Your task to perform on an android device: Search for Italian restaurants on Maps Image 0: 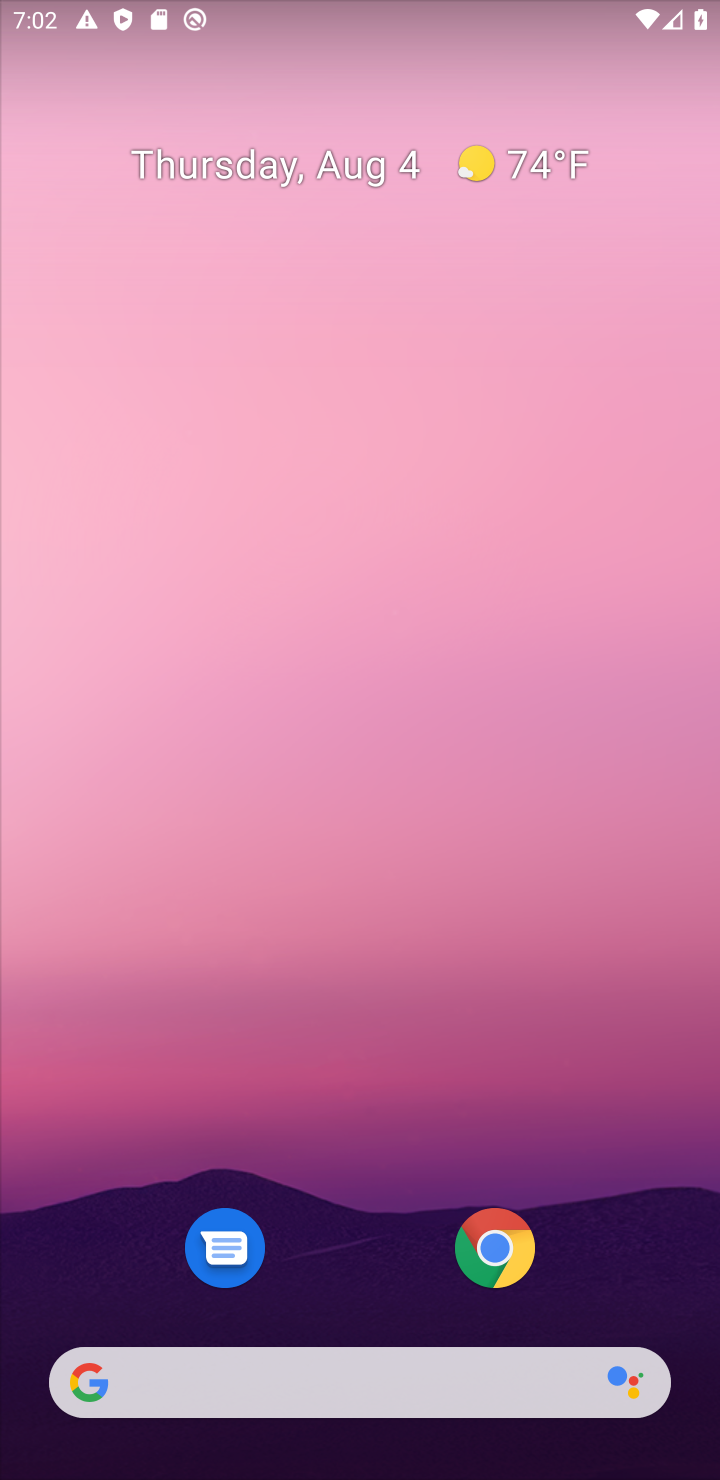
Step 0: drag from (379, 1434) to (334, 317)
Your task to perform on an android device: Search for Italian restaurants on Maps Image 1: 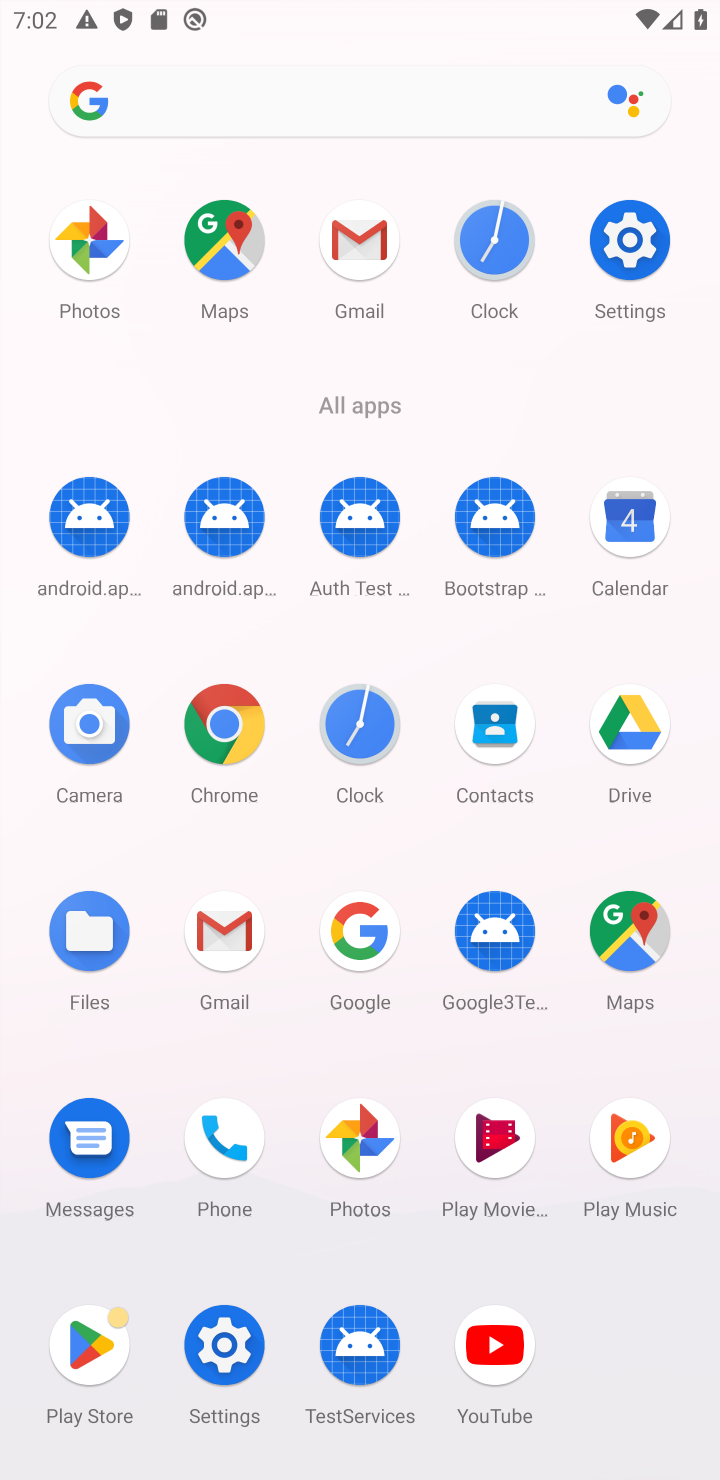
Step 1: click (222, 219)
Your task to perform on an android device: Search for Italian restaurants on Maps Image 2: 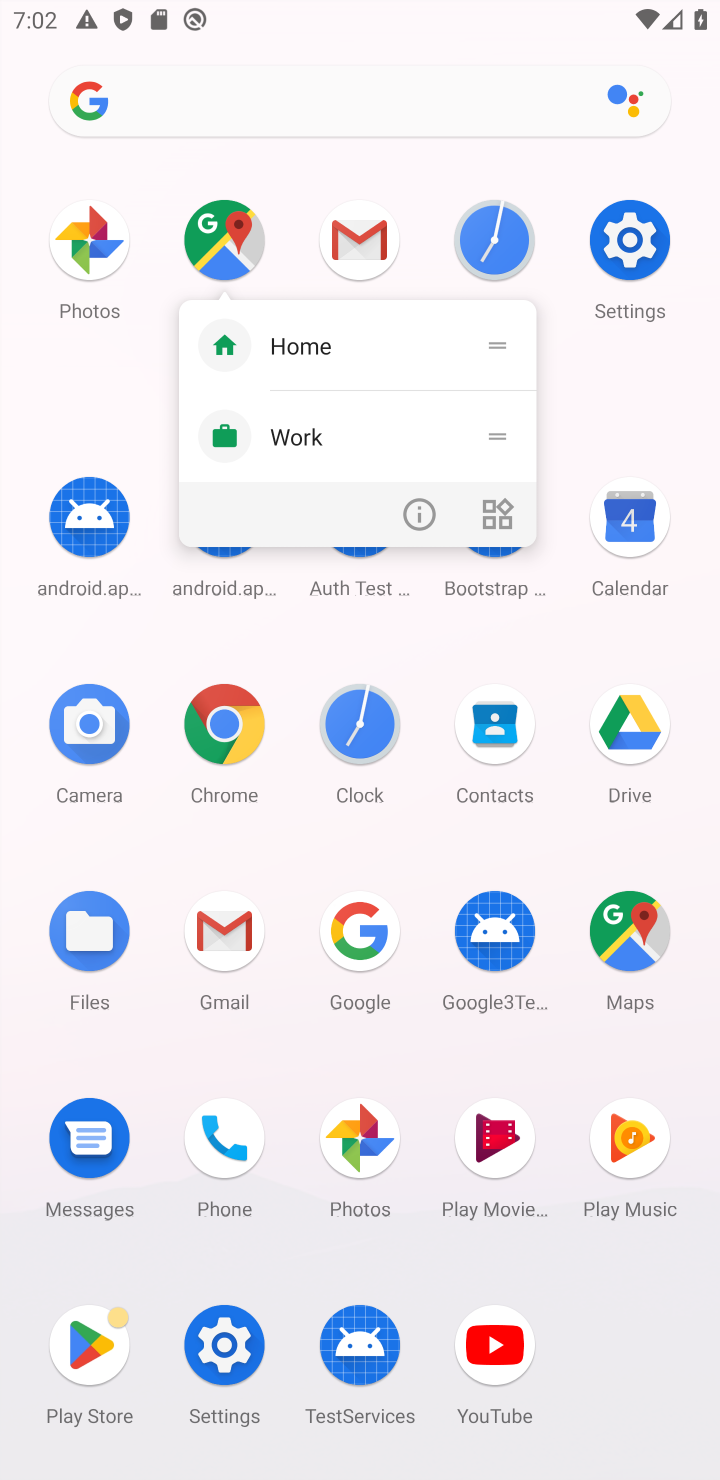
Step 2: click (219, 242)
Your task to perform on an android device: Search for Italian restaurants on Maps Image 3: 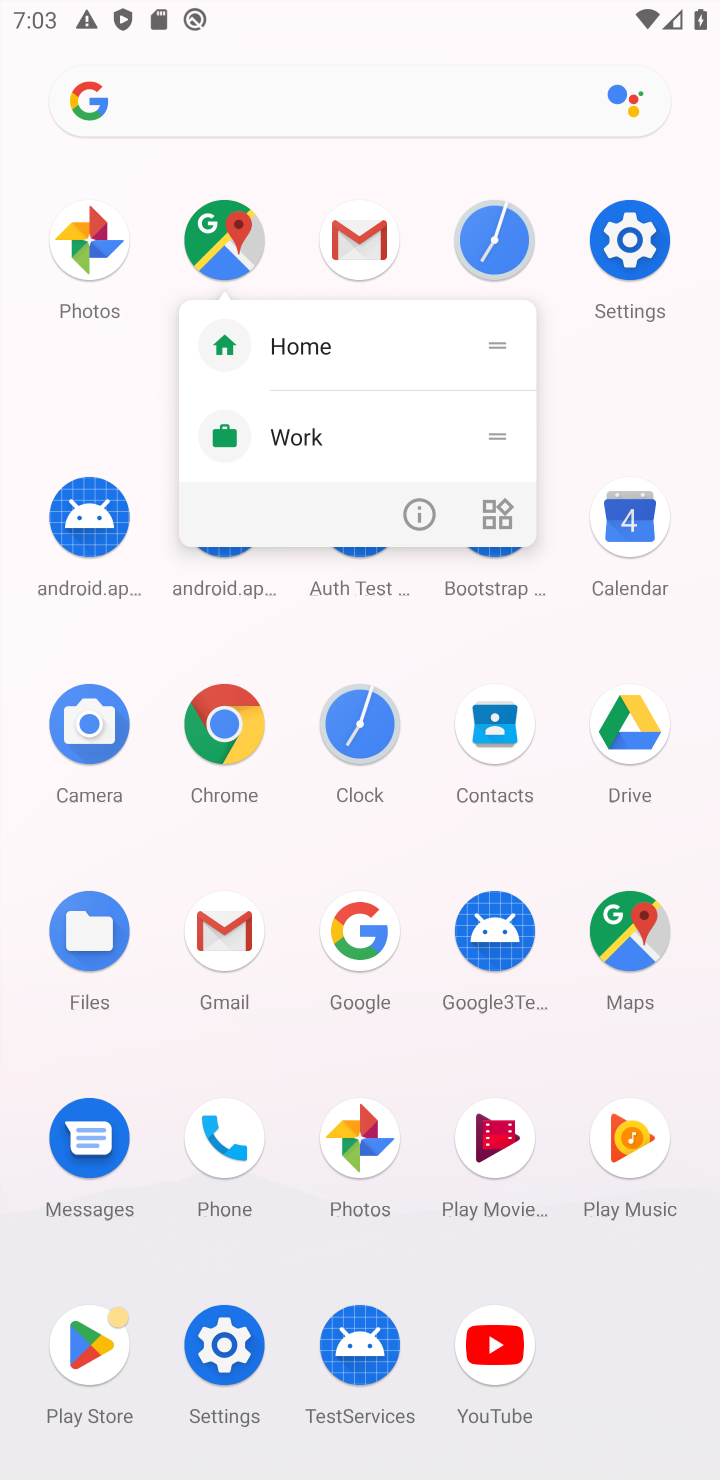
Step 3: click (219, 242)
Your task to perform on an android device: Search for Italian restaurants on Maps Image 4: 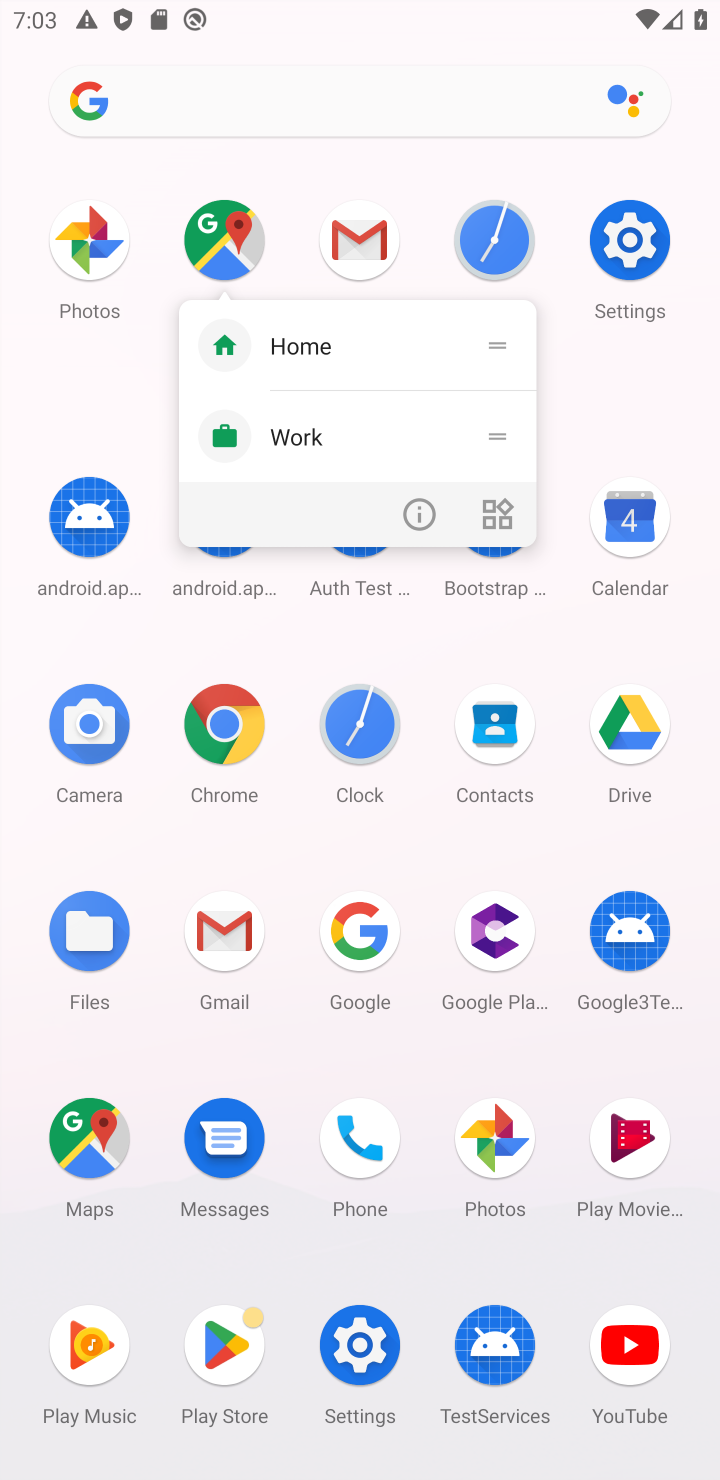
Step 4: click (220, 225)
Your task to perform on an android device: Search for Italian restaurants on Maps Image 5: 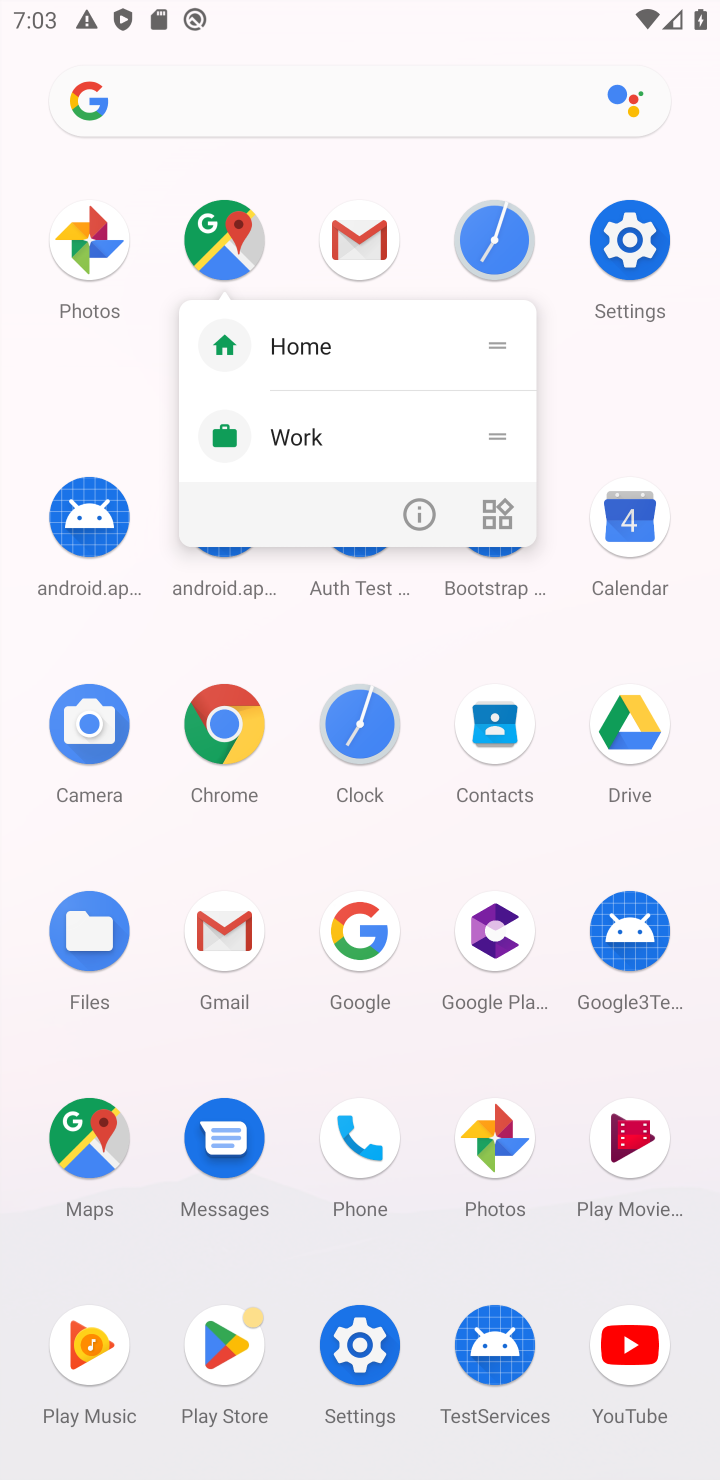
Step 5: click (245, 241)
Your task to perform on an android device: Search for Italian restaurants on Maps Image 6: 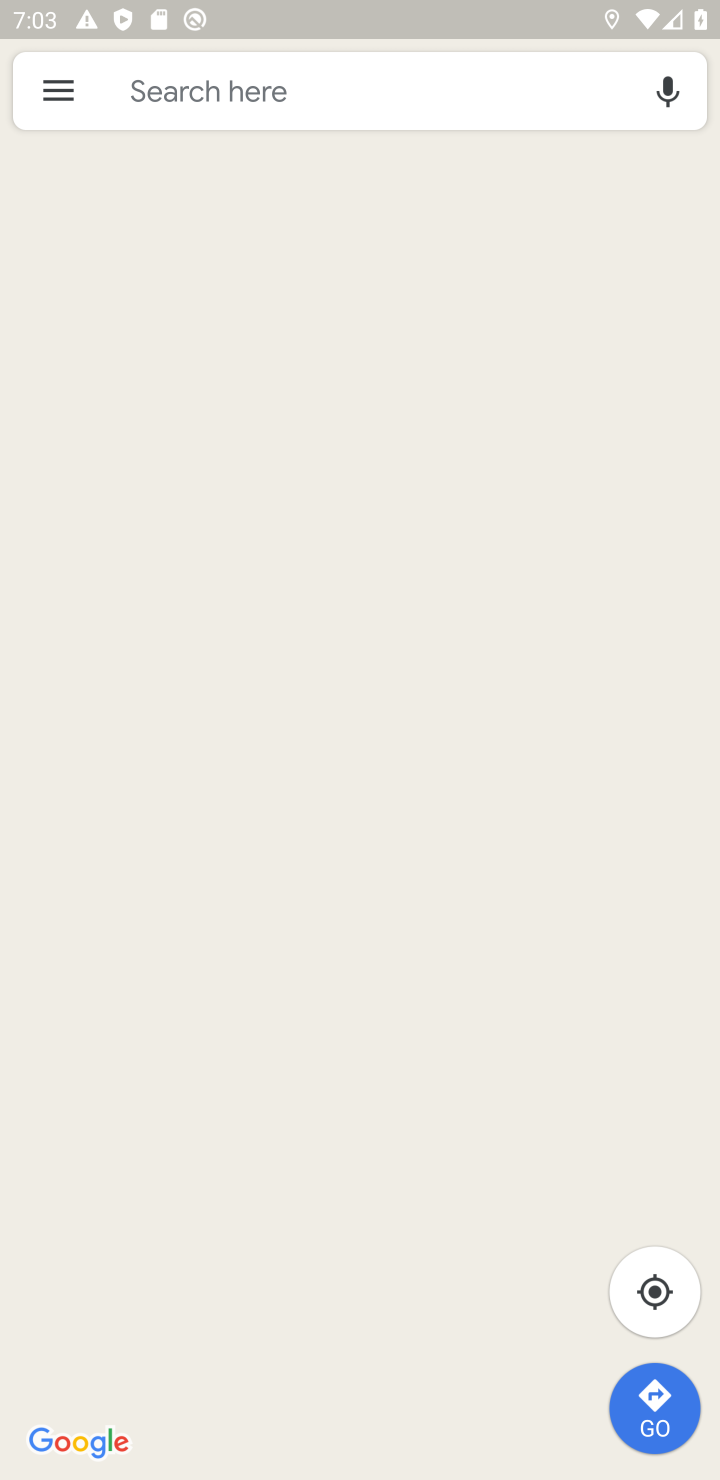
Step 6: click (216, 86)
Your task to perform on an android device: Search for Italian restaurants on Maps Image 7: 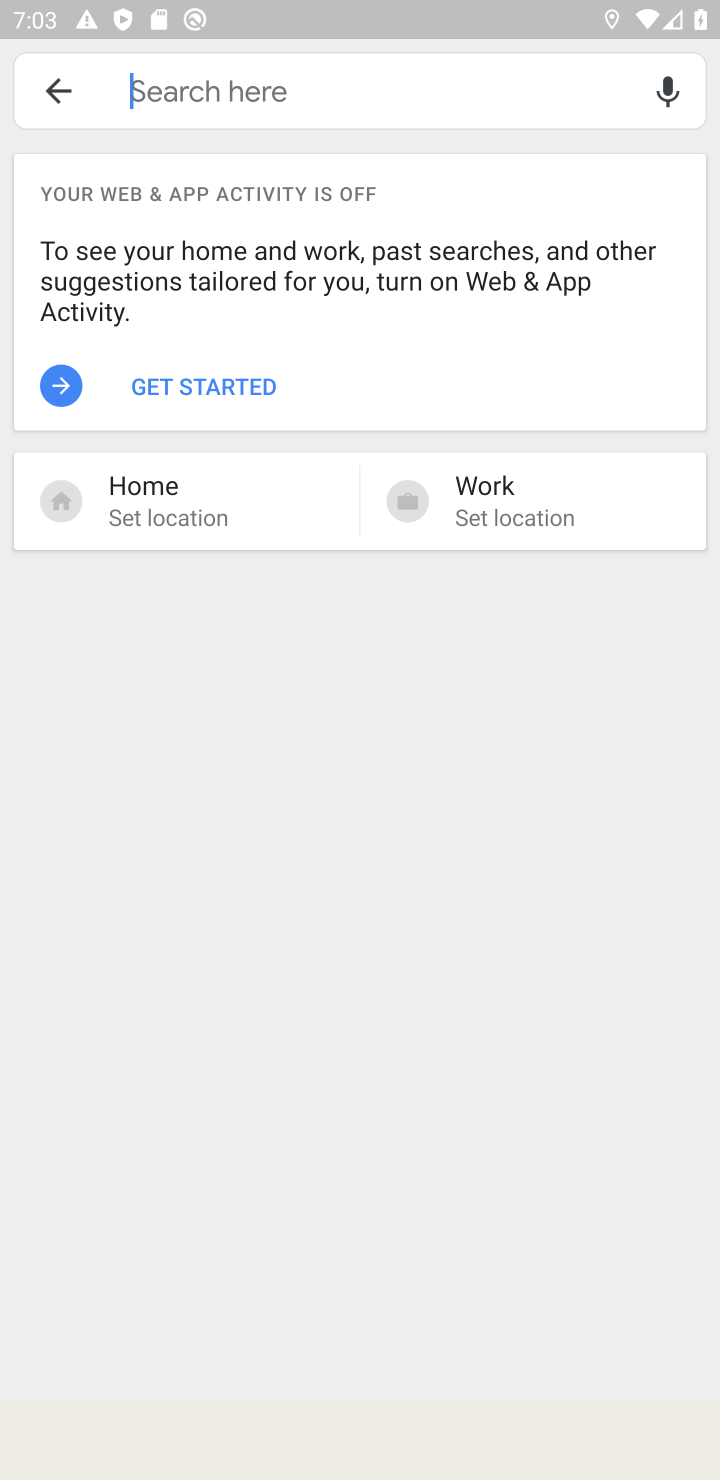
Step 7: click (195, 382)
Your task to perform on an android device: Search for Italian restaurants on Maps Image 8: 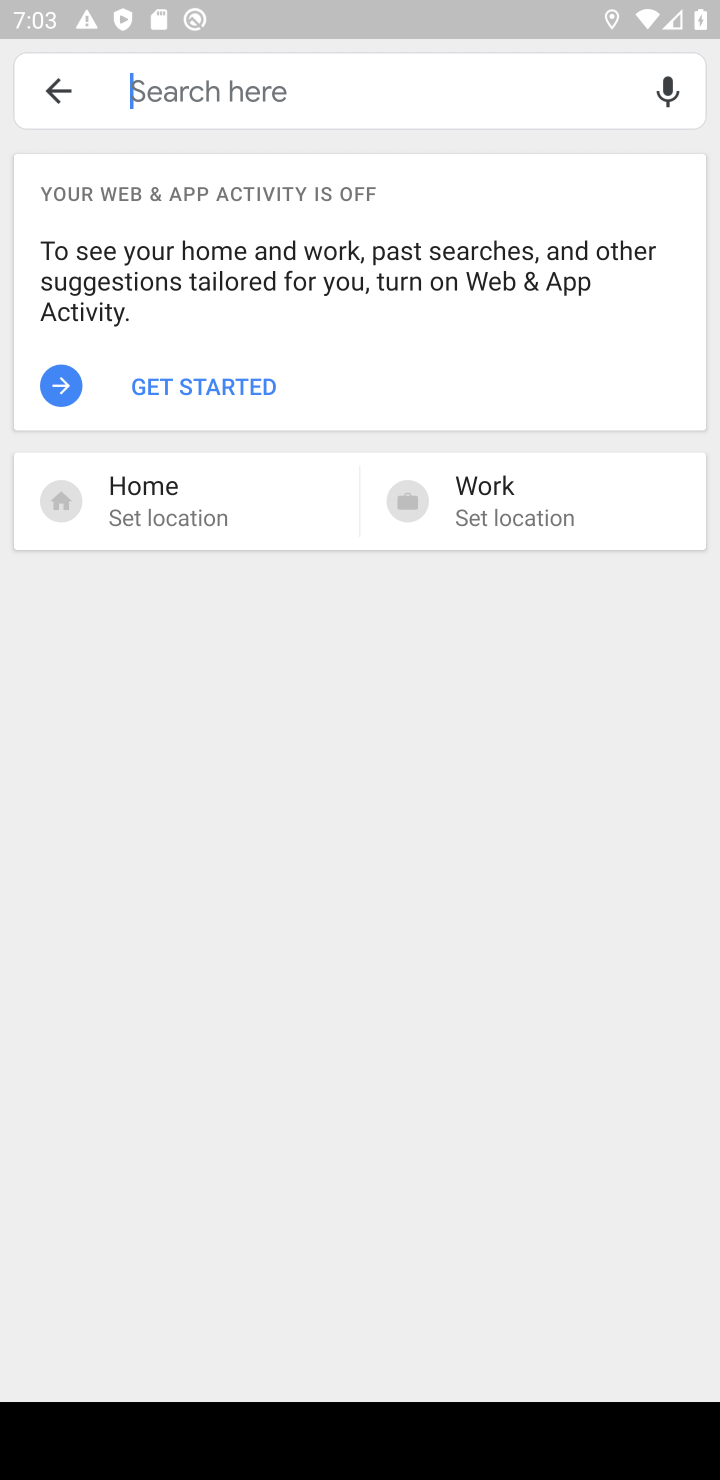
Step 8: drag from (671, 1443) to (624, 1037)
Your task to perform on an android device: Search for Italian restaurants on Maps Image 9: 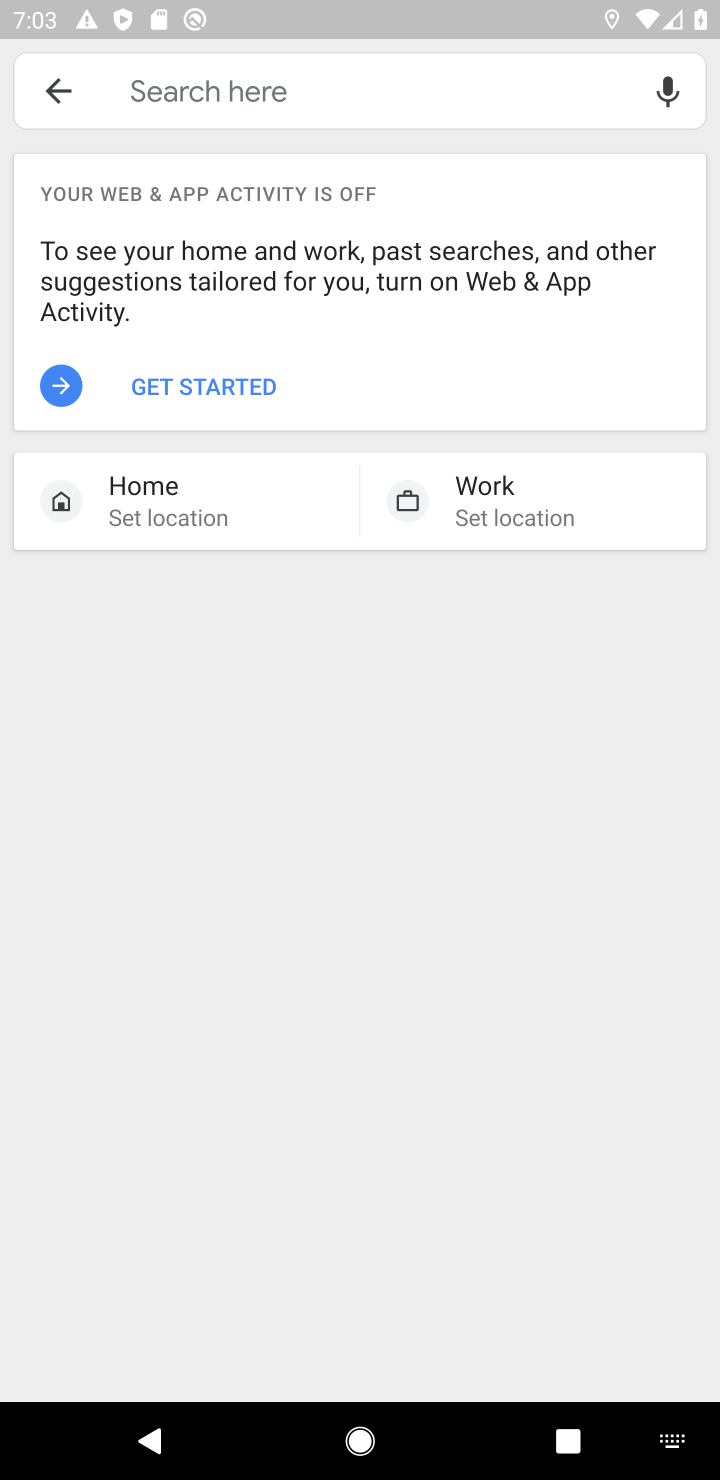
Step 9: click (677, 1441)
Your task to perform on an android device: Search for Italian restaurants on Maps Image 10: 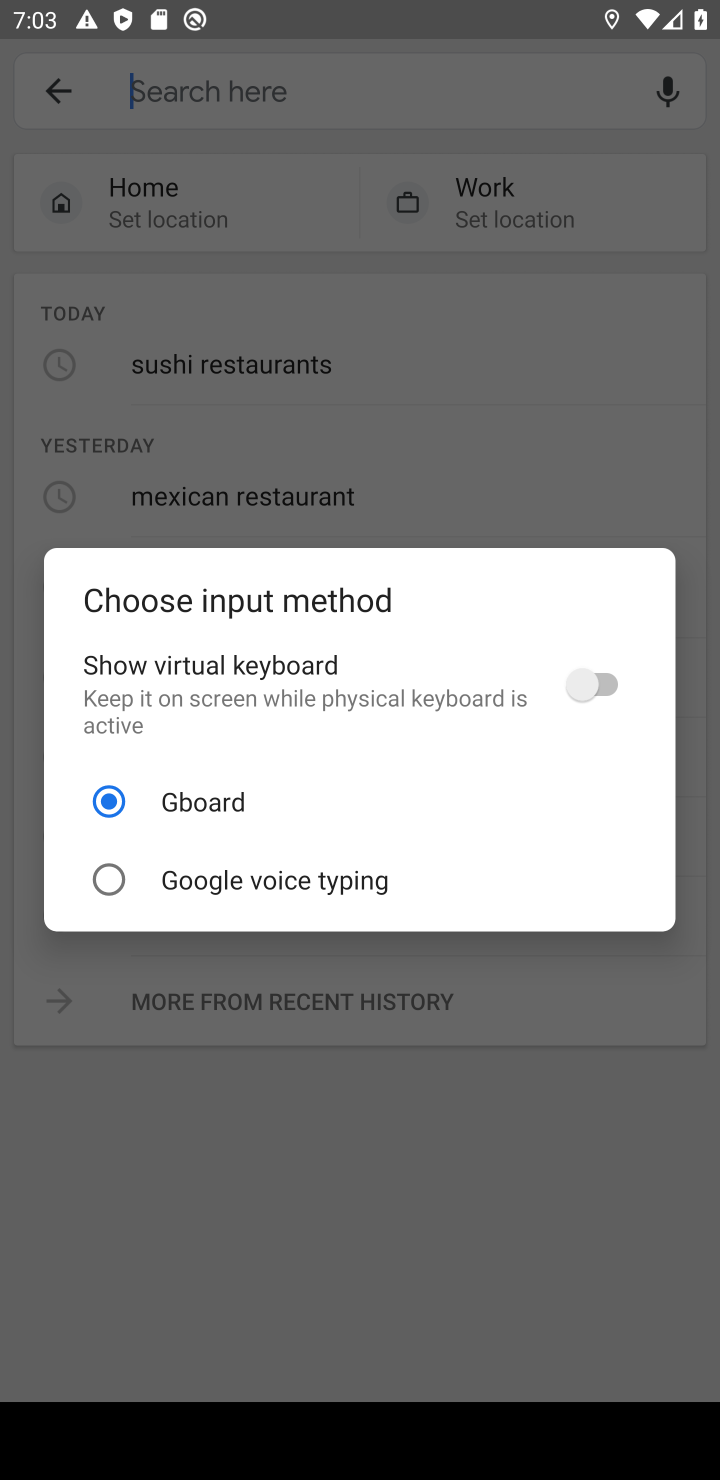
Step 10: click (595, 696)
Your task to perform on an android device: Search for Italian restaurants on Maps Image 11: 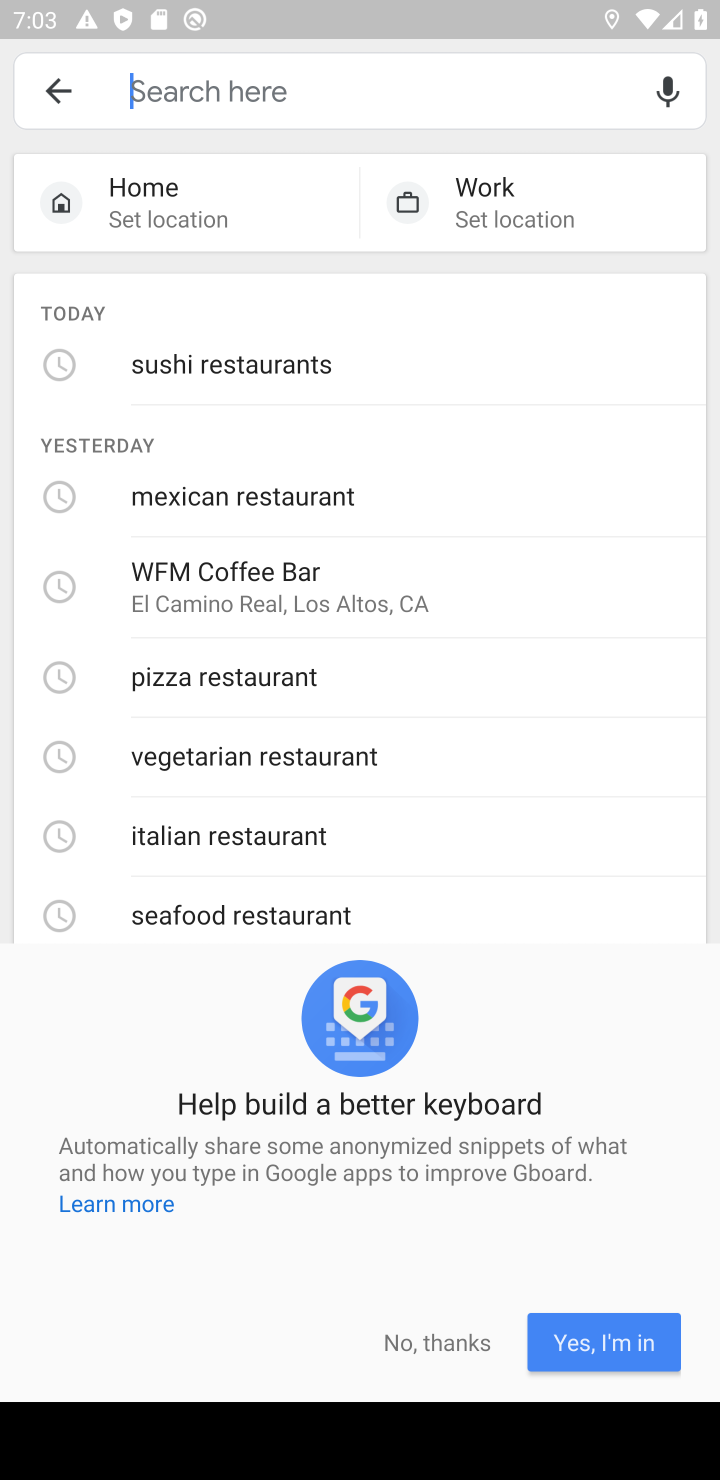
Step 11: click (384, 1359)
Your task to perform on an android device: Search for Italian restaurants on Maps Image 12: 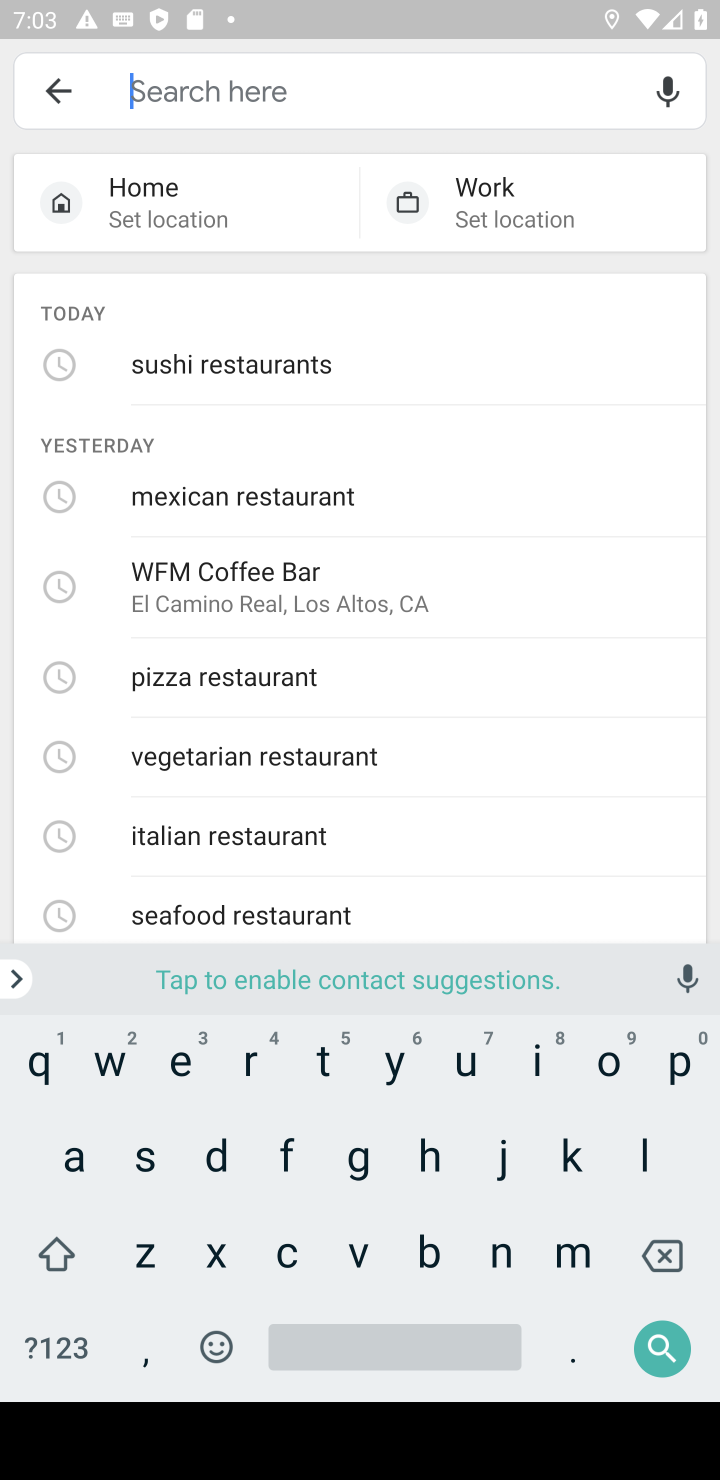
Step 12: click (241, 824)
Your task to perform on an android device: Search for Italian restaurants on Maps Image 13: 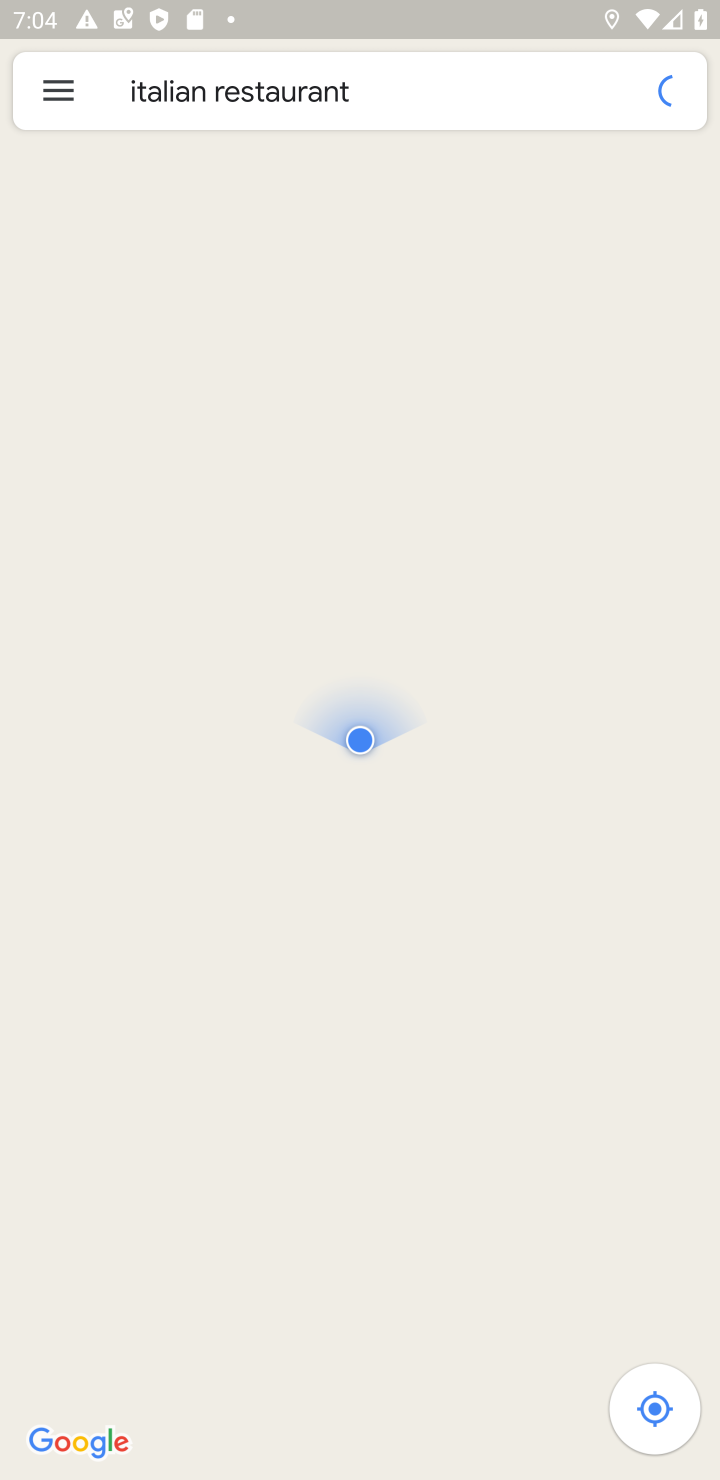
Step 13: task complete